Your task to perform on an android device: set the stopwatch Image 0: 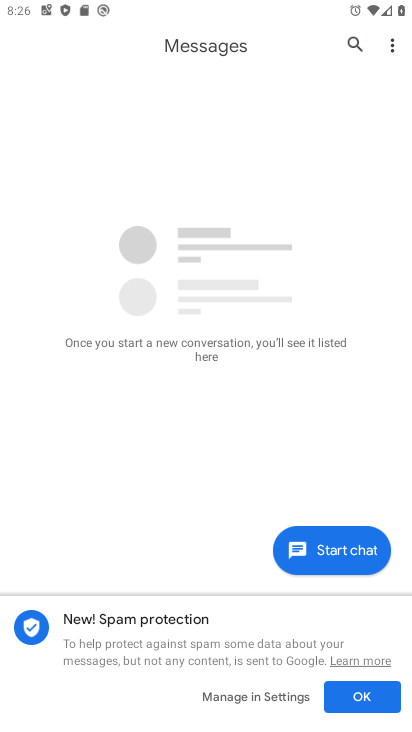
Step 0: press home button
Your task to perform on an android device: set the stopwatch Image 1: 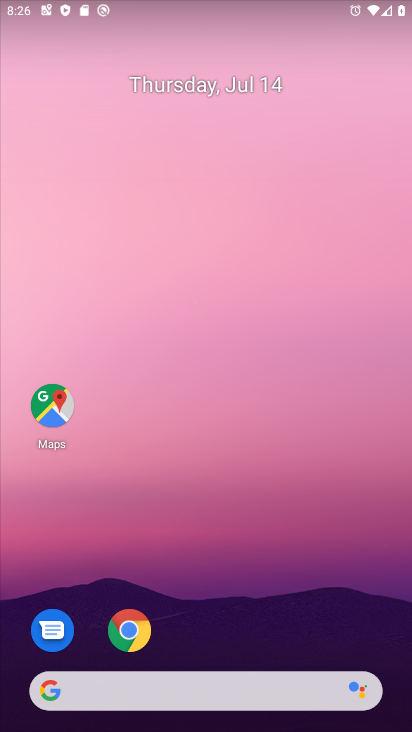
Step 1: drag from (187, 725) to (162, 85)
Your task to perform on an android device: set the stopwatch Image 2: 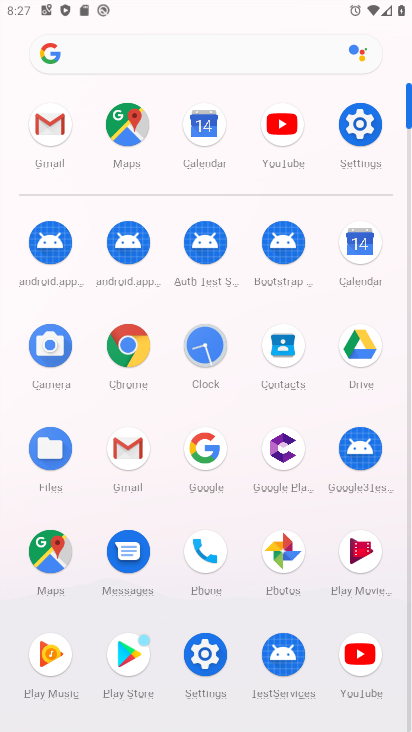
Step 2: click (196, 346)
Your task to perform on an android device: set the stopwatch Image 3: 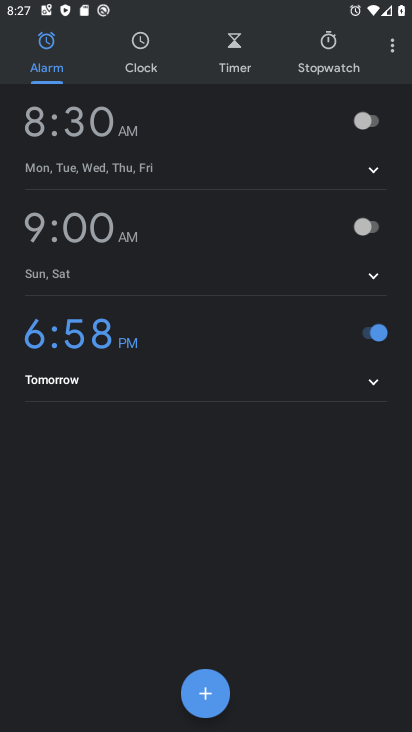
Step 3: click (327, 51)
Your task to perform on an android device: set the stopwatch Image 4: 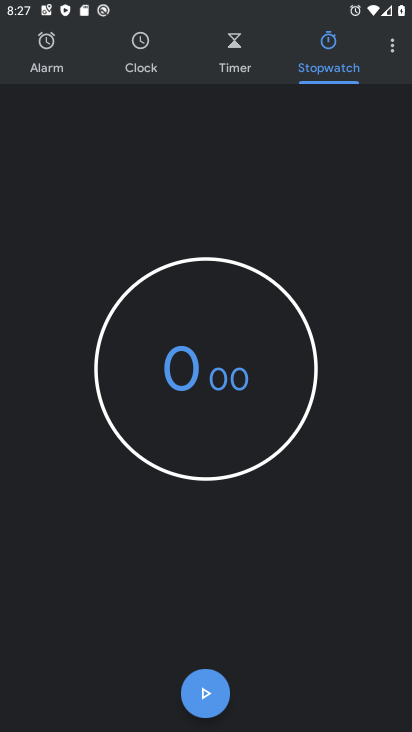
Step 4: click (201, 342)
Your task to perform on an android device: set the stopwatch Image 5: 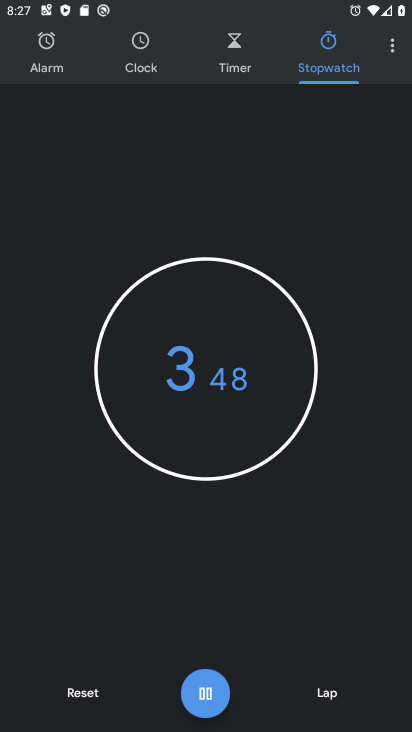
Step 5: type "767676"
Your task to perform on an android device: set the stopwatch Image 6: 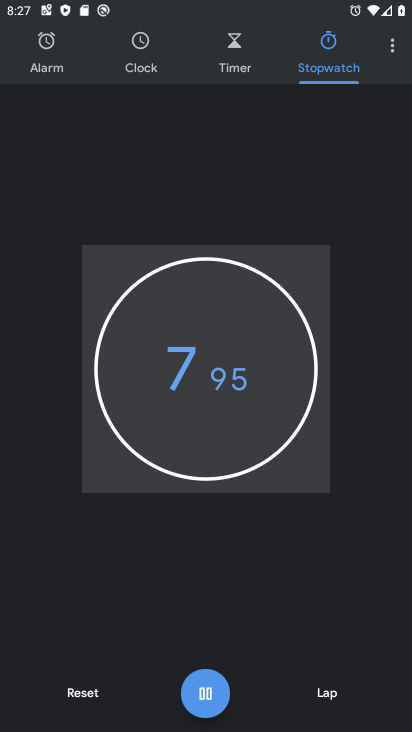
Step 6: task complete